Your task to perform on an android device: turn vacation reply on in the gmail app Image 0: 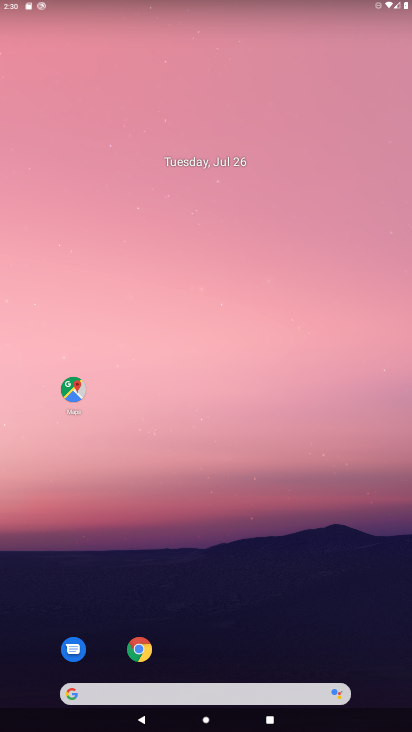
Step 0: drag from (177, 700) to (243, 142)
Your task to perform on an android device: turn vacation reply on in the gmail app Image 1: 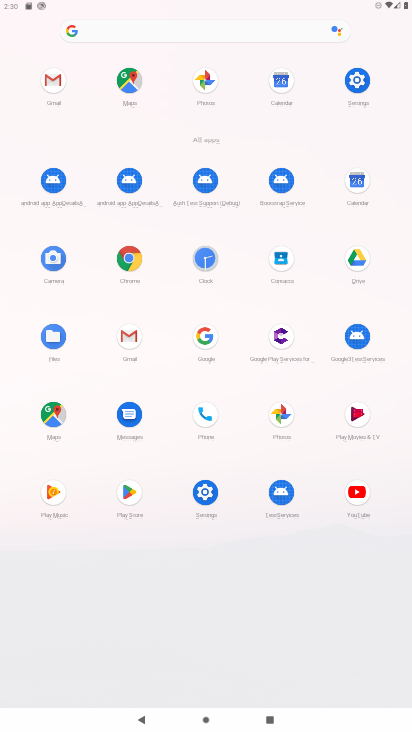
Step 1: click (137, 332)
Your task to perform on an android device: turn vacation reply on in the gmail app Image 2: 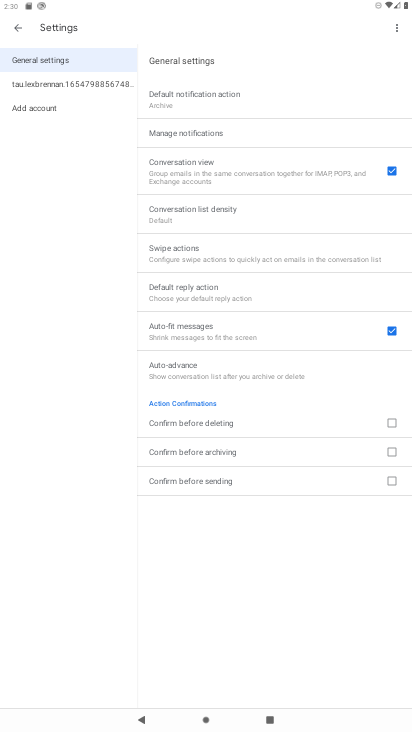
Step 2: click (61, 84)
Your task to perform on an android device: turn vacation reply on in the gmail app Image 3: 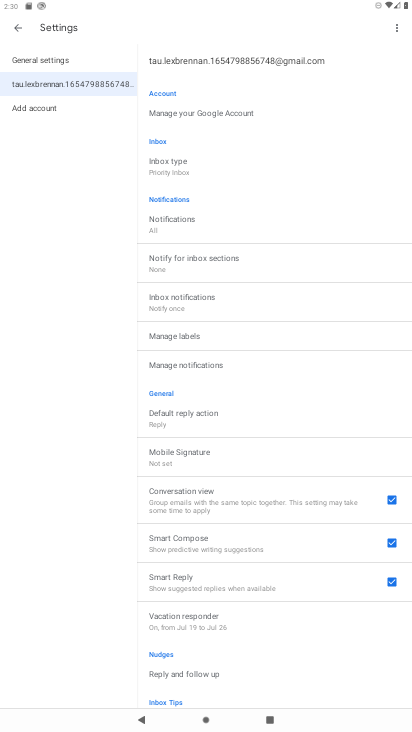
Step 3: click (238, 617)
Your task to perform on an android device: turn vacation reply on in the gmail app Image 4: 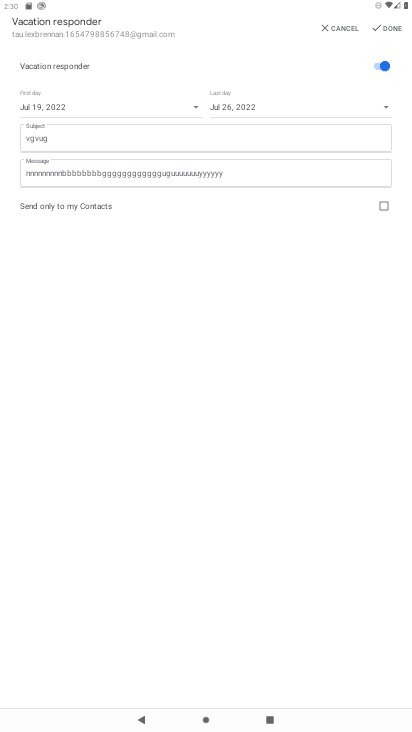
Step 4: task complete